Your task to perform on an android device: Search for Italian restaurants on Maps Image 0: 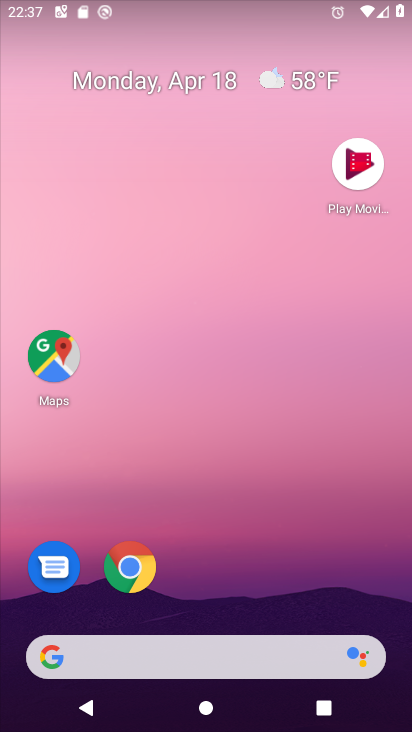
Step 0: click (209, 138)
Your task to perform on an android device: Search for Italian restaurants on Maps Image 1: 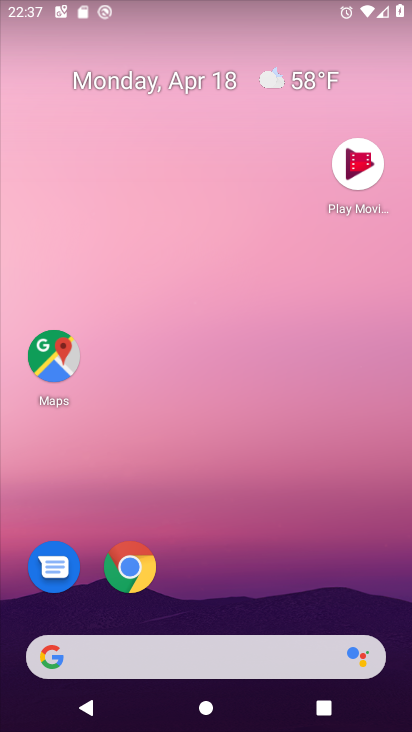
Step 1: drag from (225, 474) to (222, 92)
Your task to perform on an android device: Search for Italian restaurants on Maps Image 2: 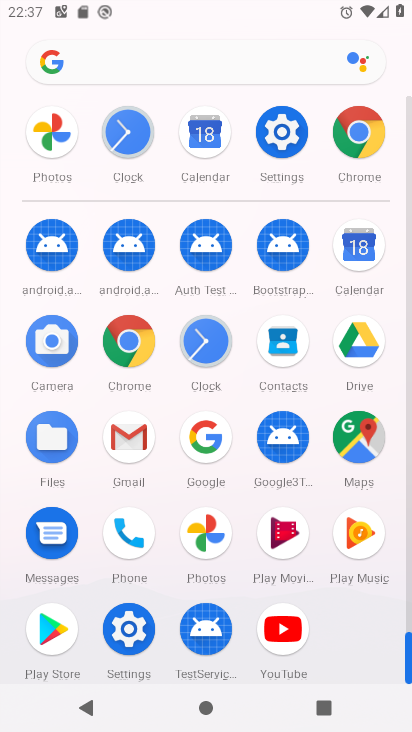
Step 2: click (353, 426)
Your task to perform on an android device: Search for Italian restaurants on Maps Image 3: 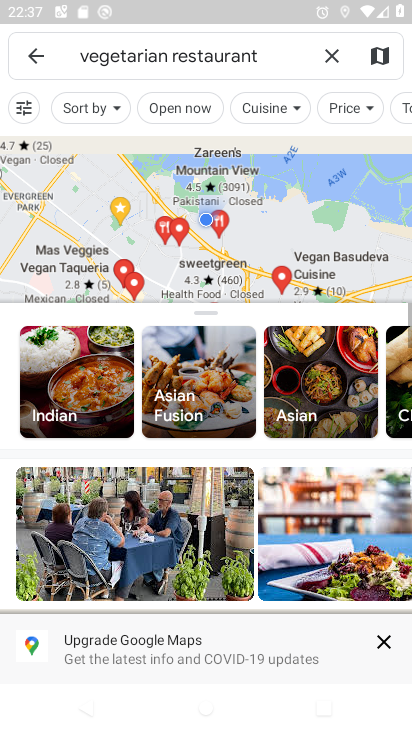
Step 3: click (336, 61)
Your task to perform on an android device: Search for Italian restaurants on Maps Image 4: 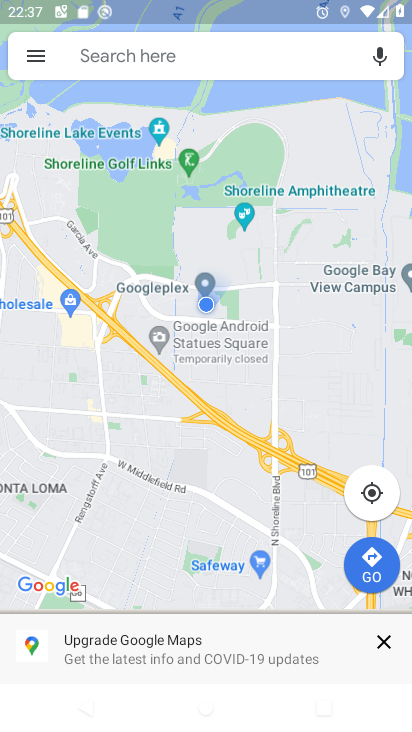
Step 4: click (149, 47)
Your task to perform on an android device: Search for Italian restaurants on Maps Image 5: 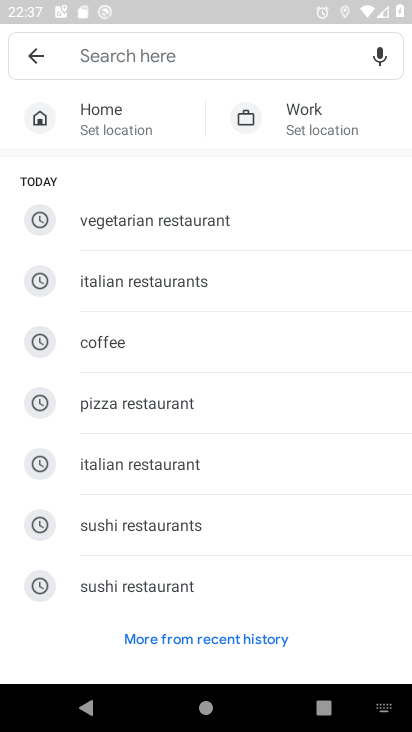
Step 5: click (120, 281)
Your task to perform on an android device: Search for Italian restaurants on Maps Image 6: 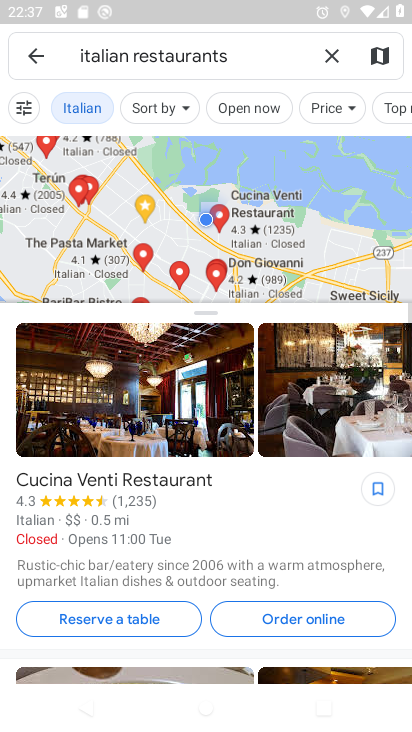
Step 6: task complete